Your task to perform on an android device: open wifi settings Image 0: 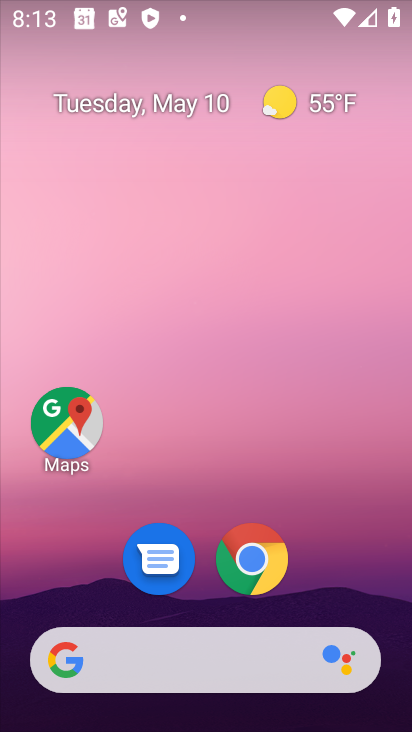
Step 0: drag from (221, 729) to (222, 199)
Your task to perform on an android device: open wifi settings Image 1: 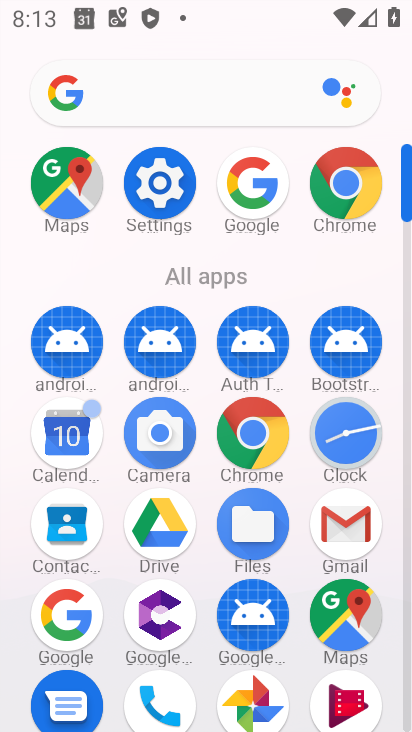
Step 1: click (160, 189)
Your task to perform on an android device: open wifi settings Image 2: 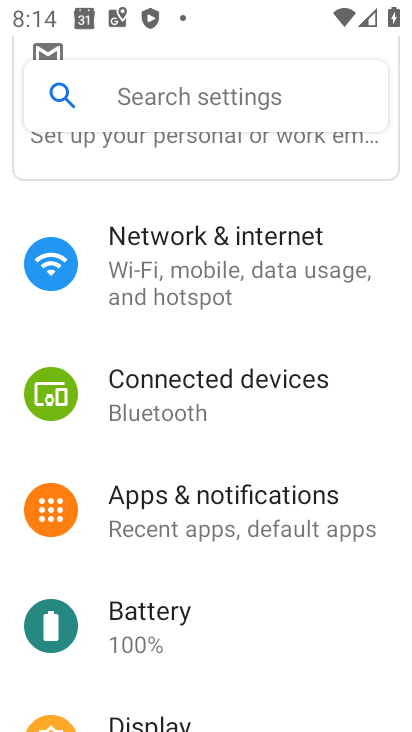
Step 2: click (157, 265)
Your task to perform on an android device: open wifi settings Image 3: 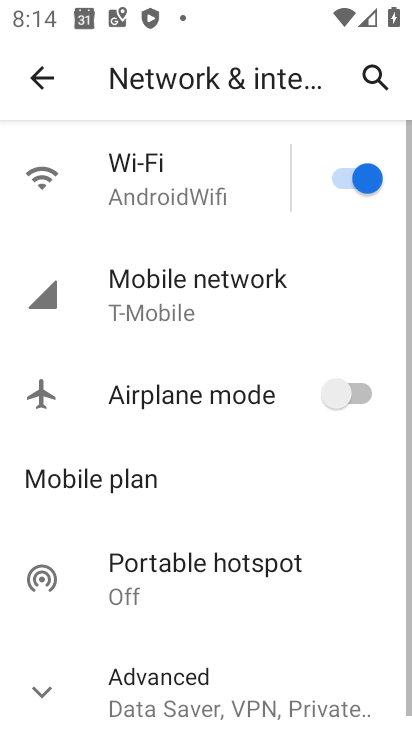
Step 3: click (157, 183)
Your task to perform on an android device: open wifi settings Image 4: 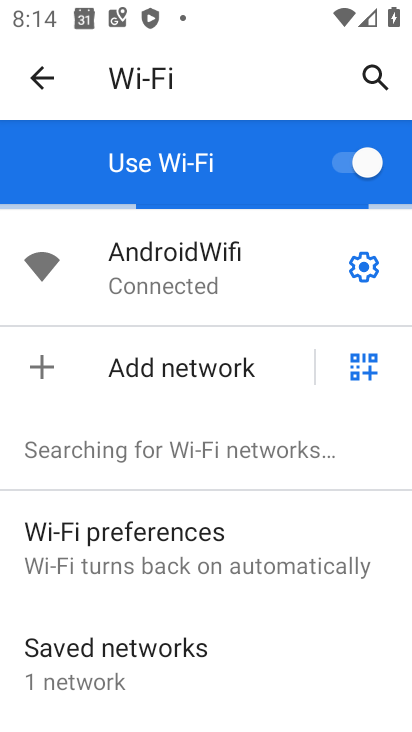
Step 4: click (359, 263)
Your task to perform on an android device: open wifi settings Image 5: 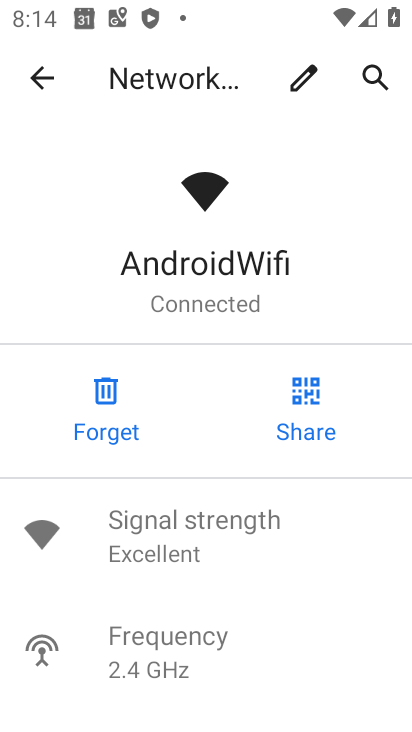
Step 5: task complete